Your task to perform on an android device: turn on javascript in the chrome app Image 0: 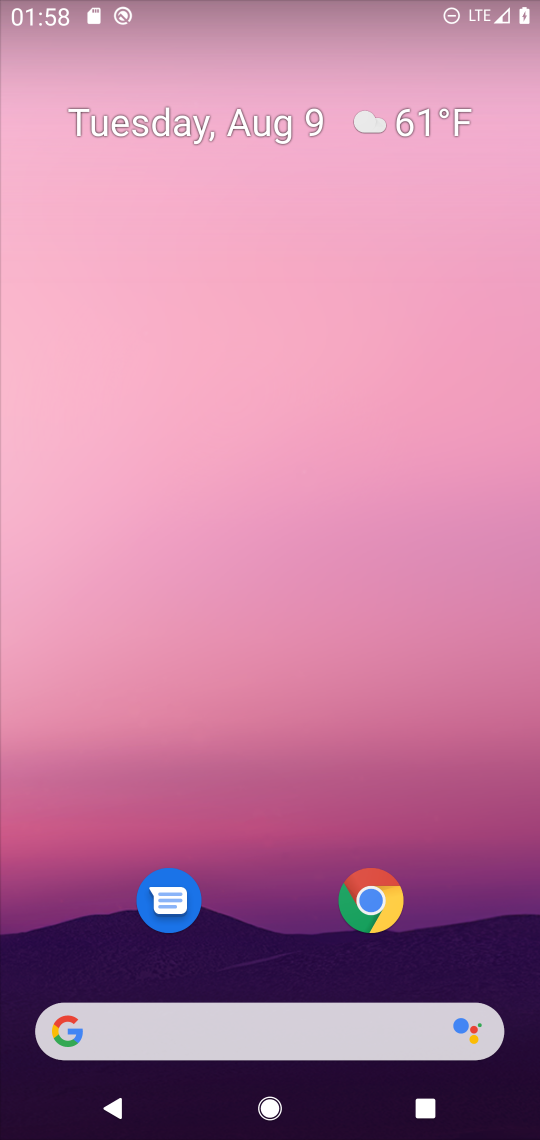
Step 0: press home button
Your task to perform on an android device: turn on javascript in the chrome app Image 1: 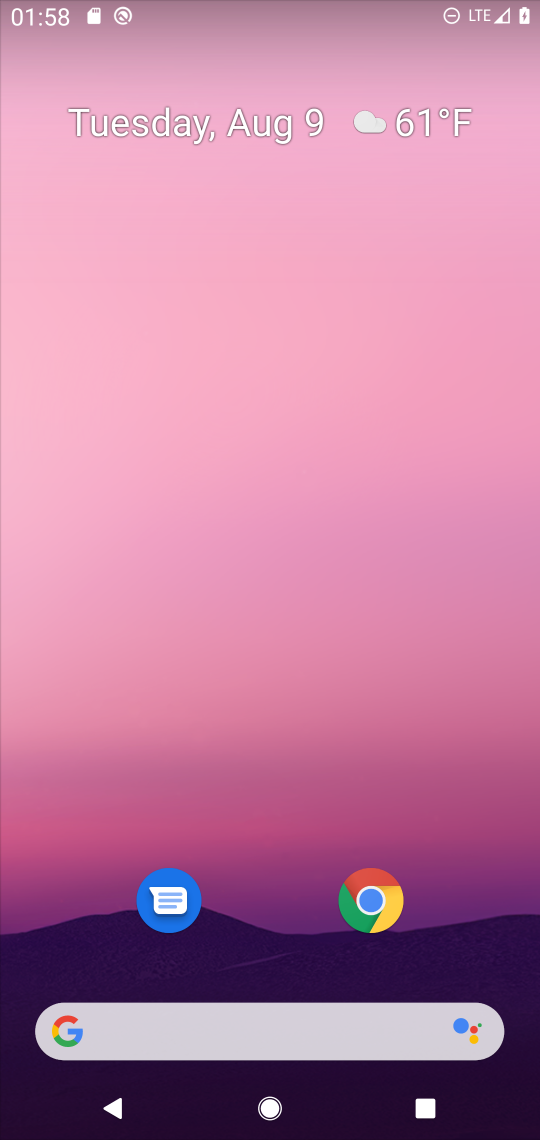
Step 1: drag from (274, 930) to (288, 250)
Your task to perform on an android device: turn on javascript in the chrome app Image 2: 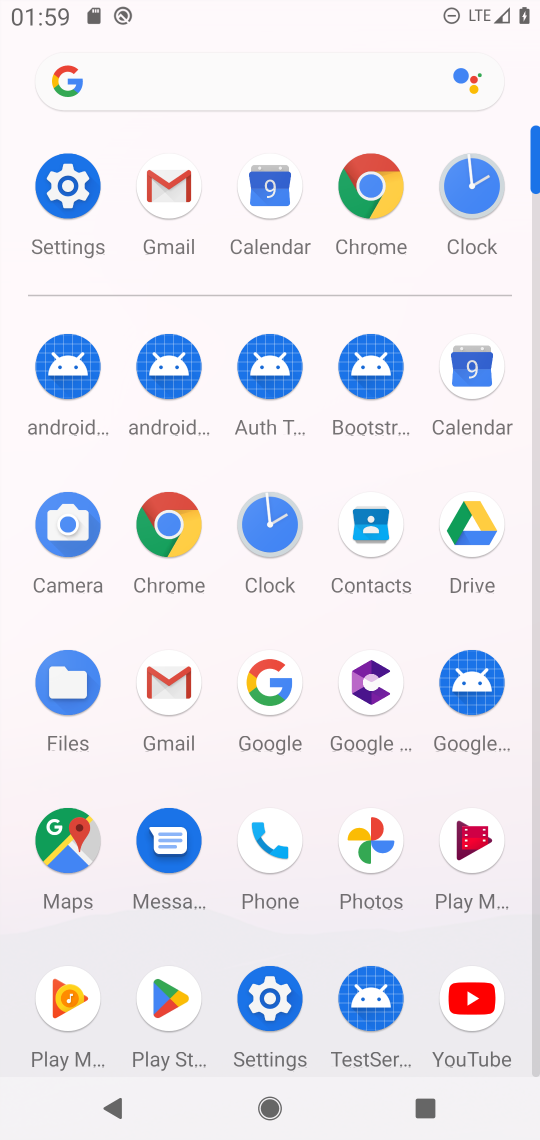
Step 2: click (176, 540)
Your task to perform on an android device: turn on javascript in the chrome app Image 3: 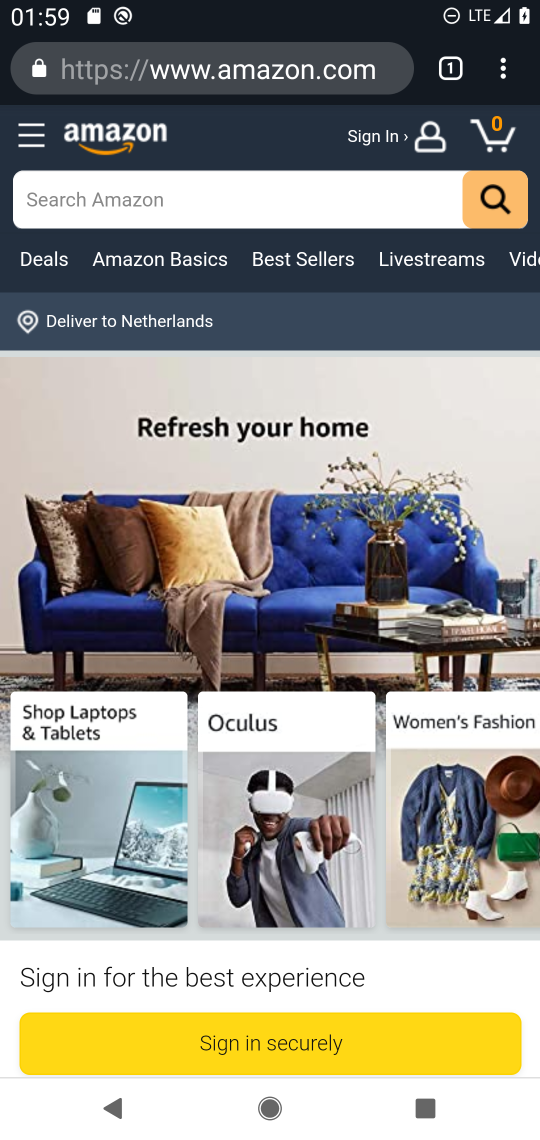
Step 3: click (502, 76)
Your task to perform on an android device: turn on javascript in the chrome app Image 4: 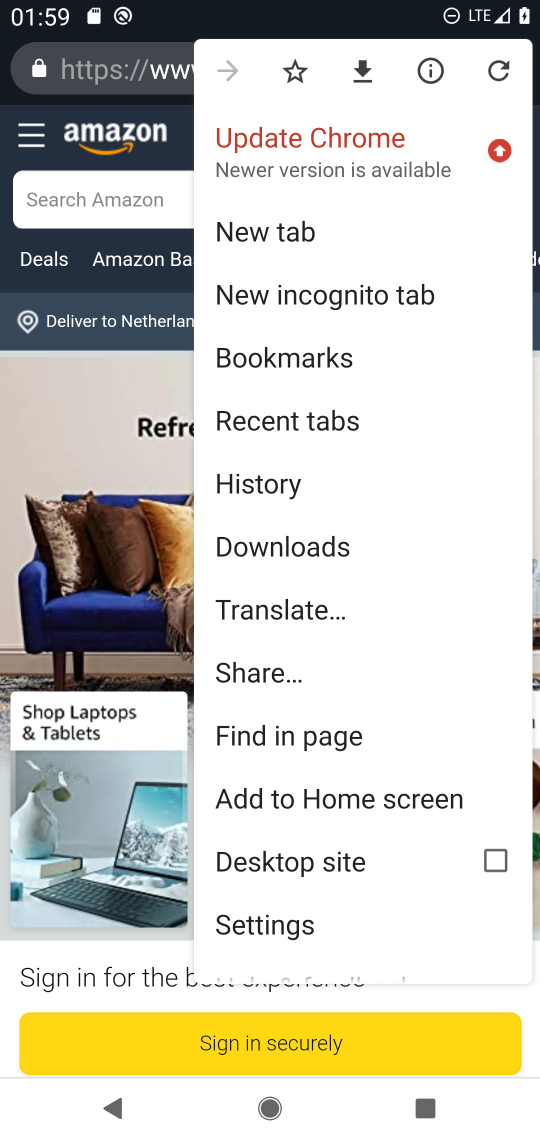
Step 4: click (284, 920)
Your task to perform on an android device: turn on javascript in the chrome app Image 5: 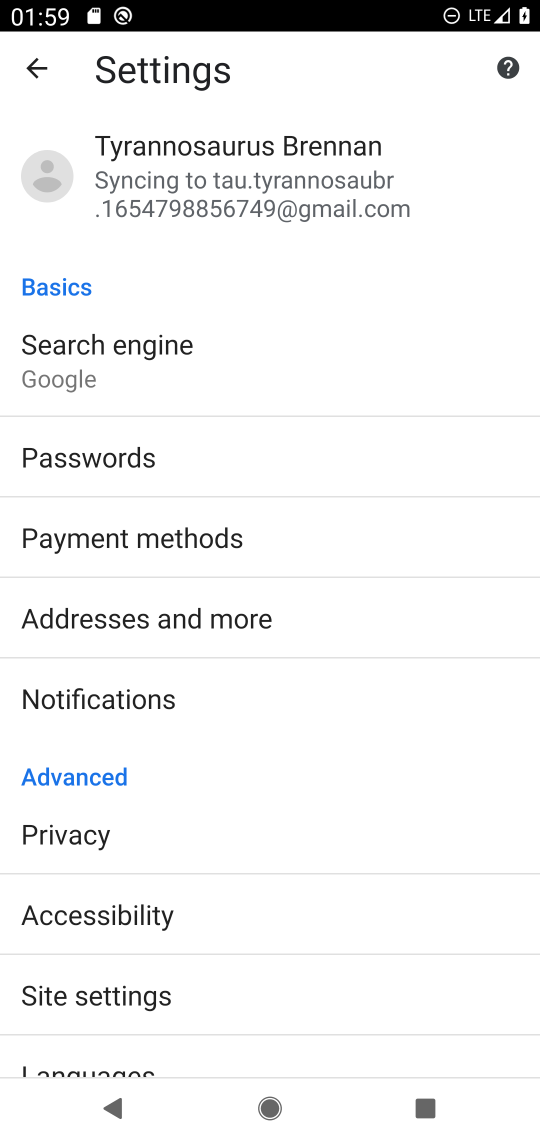
Step 5: drag from (391, 850) to (402, 608)
Your task to perform on an android device: turn on javascript in the chrome app Image 6: 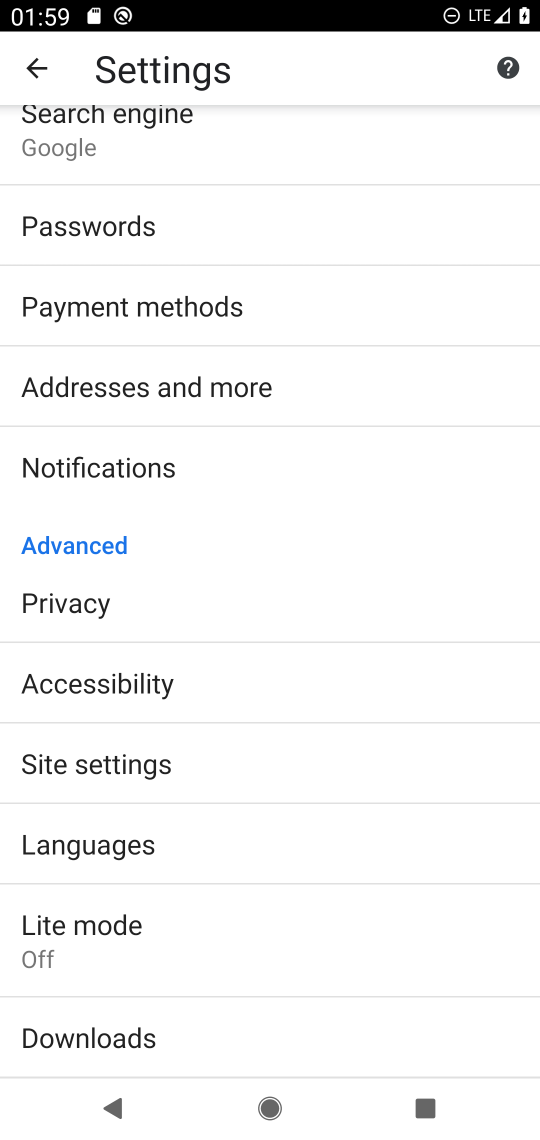
Step 6: drag from (395, 869) to (392, 693)
Your task to perform on an android device: turn on javascript in the chrome app Image 7: 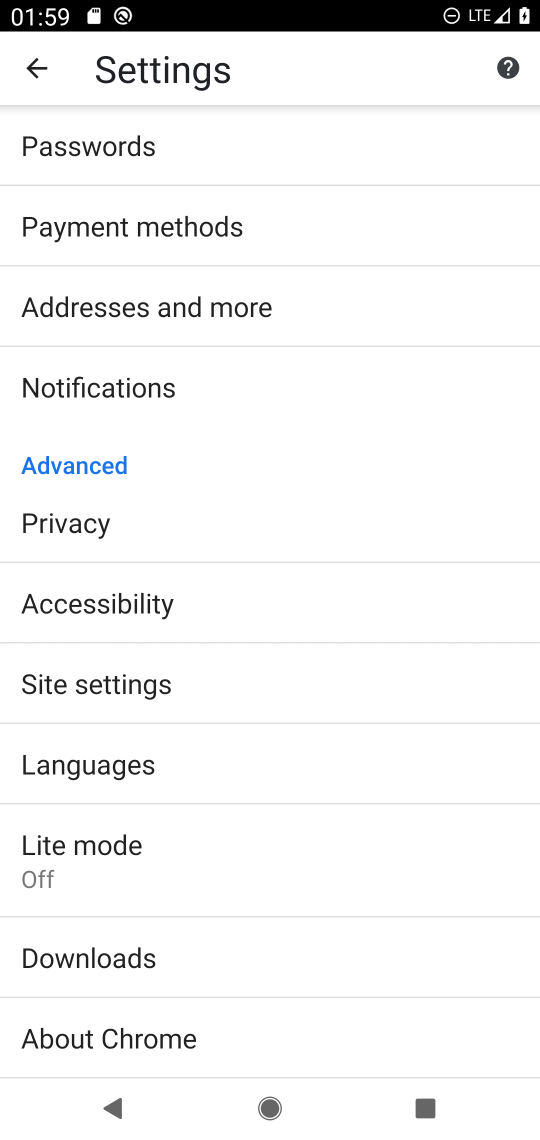
Step 7: drag from (368, 854) to (371, 552)
Your task to perform on an android device: turn on javascript in the chrome app Image 8: 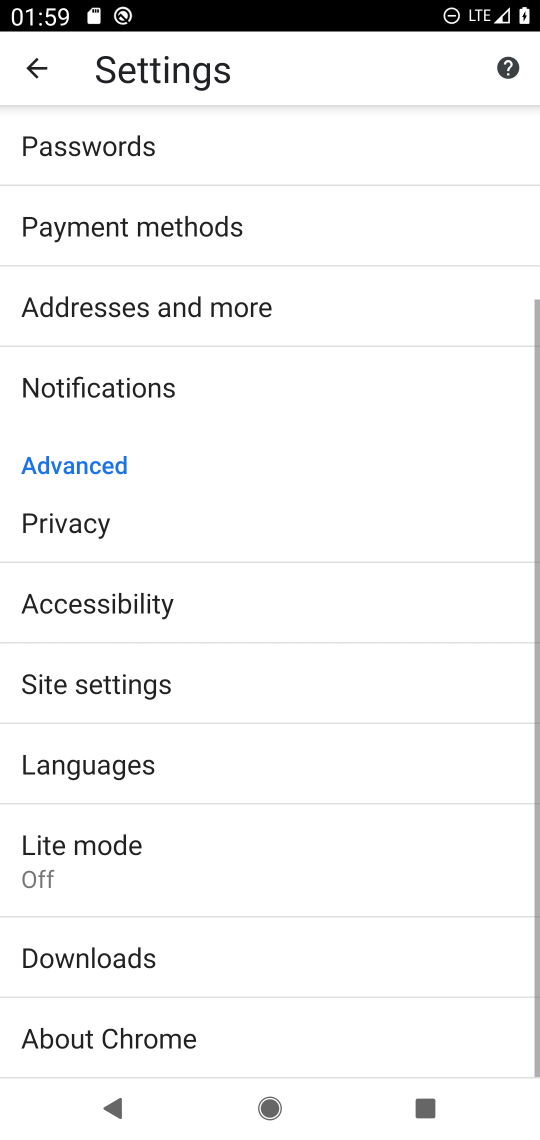
Step 8: click (360, 679)
Your task to perform on an android device: turn on javascript in the chrome app Image 9: 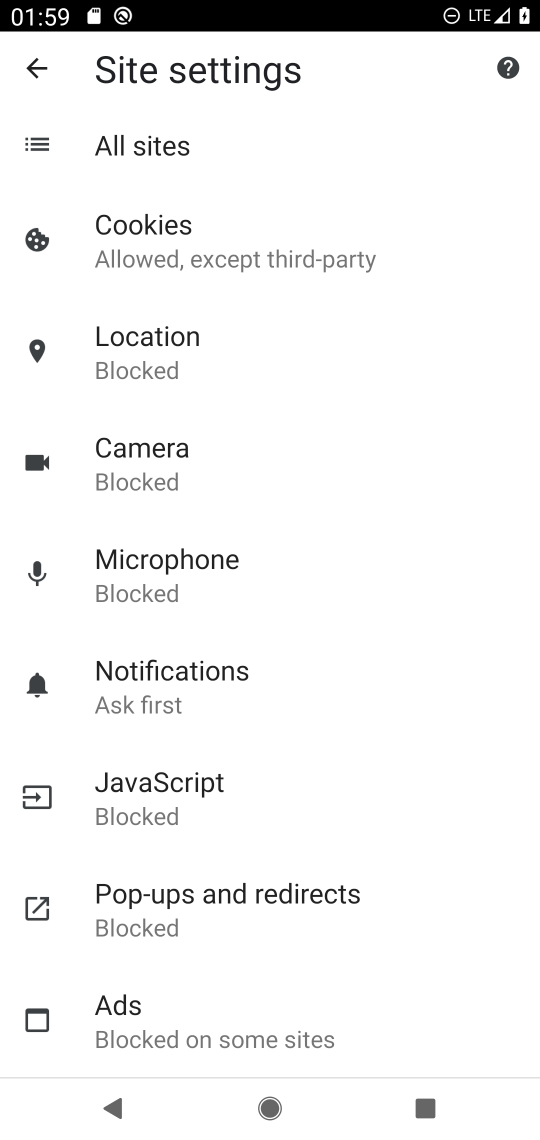
Step 9: drag from (396, 802) to (426, 402)
Your task to perform on an android device: turn on javascript in the chrome app Image 10: 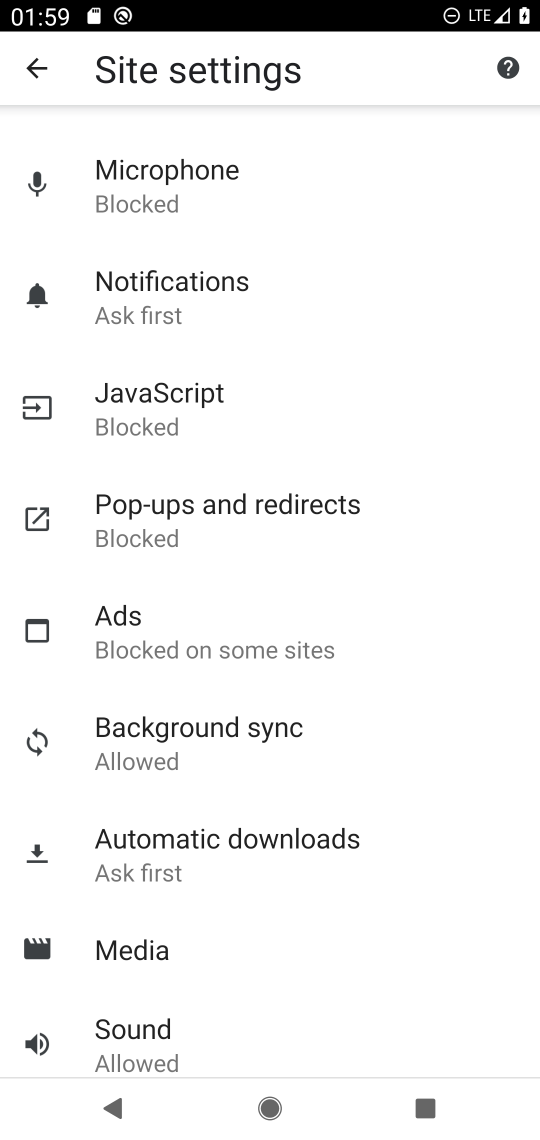
Step 10: drag from (441, 665) to (450, 434)
Your task to perform on an android device: turn on javascript in the chrome app Image 11: 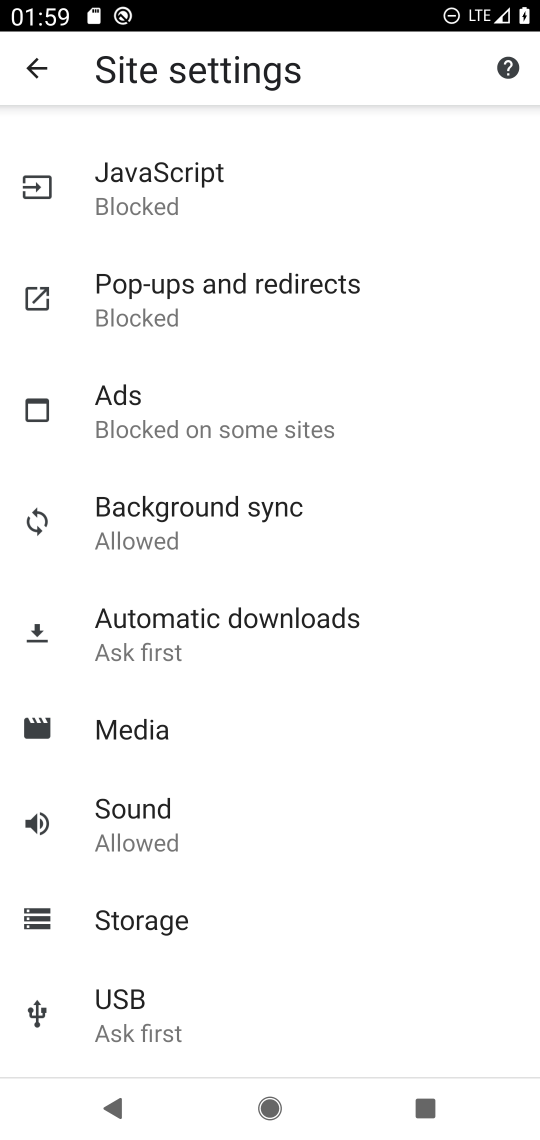
Step 11: click (217, 190)
Your task to perform on an android device: turn on javascript in the chrome app Image 12: 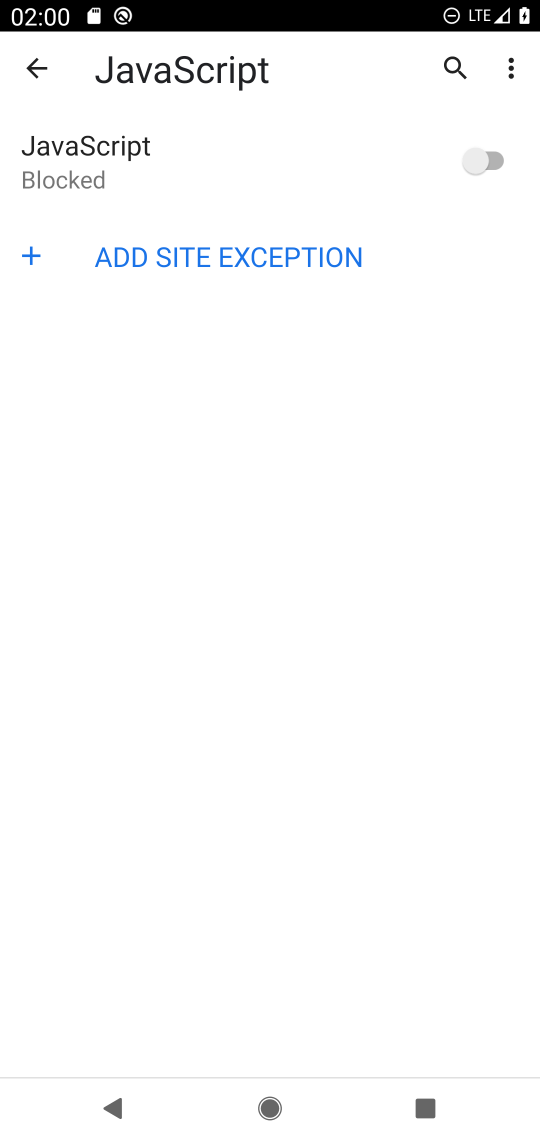
Step 12: click (481, 152)
Your task to perform on an android device: turn on javascript in the chrome app Image 13: 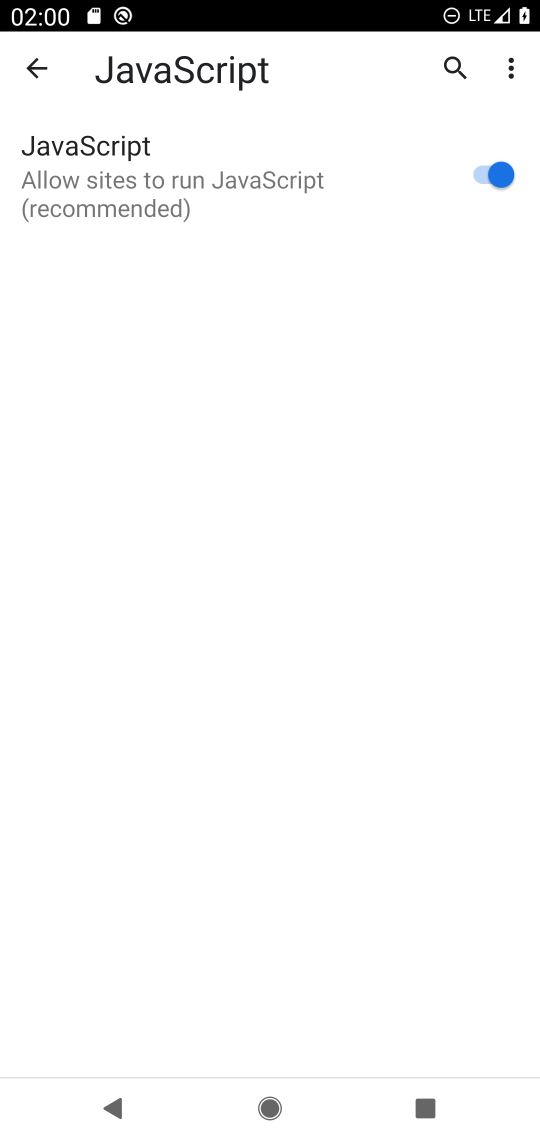
Step 13: task complete